Your task to perform on an android device: Open the phone app and click the voicemail tab. Image 0: 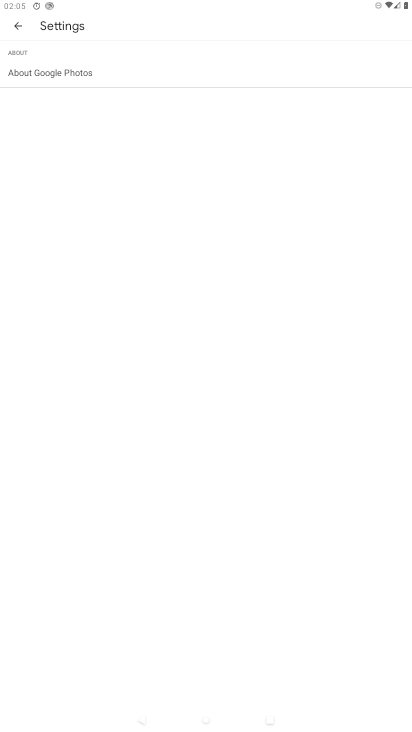
Step 0: press home button
Your task to perform on an android device: Open the phone app and click the voicemail tab. Image 1: 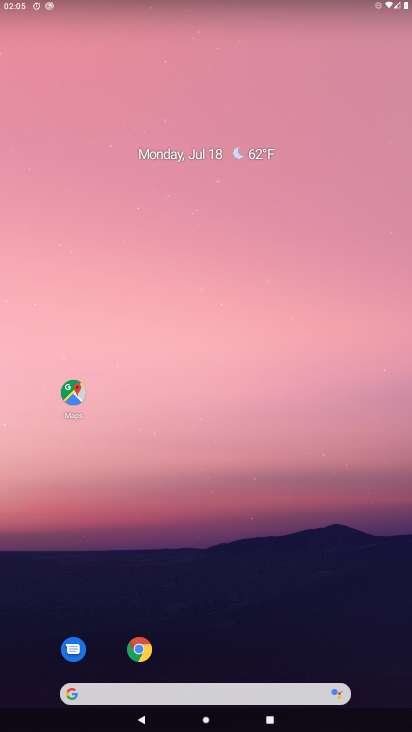
Step 1: drag from (41, 689) to (124, 315)
Your task to perform on an android device: Open the phone app and click the voicemail tab. Image 2: 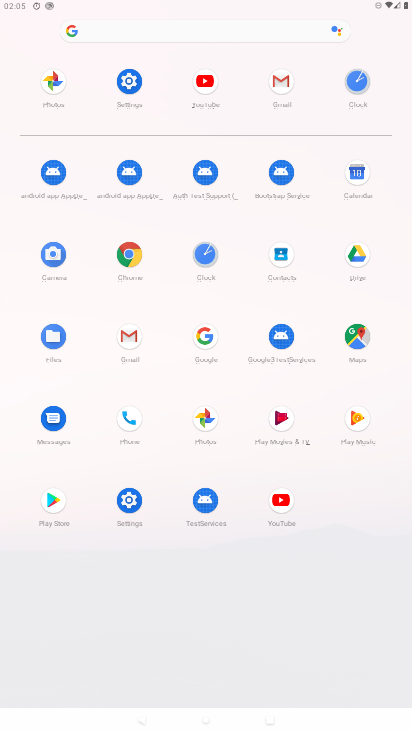
Step 2: click (278, 265)
Your task to perform on an android device: Open the phone app and click the voicemail tab. Image 3: 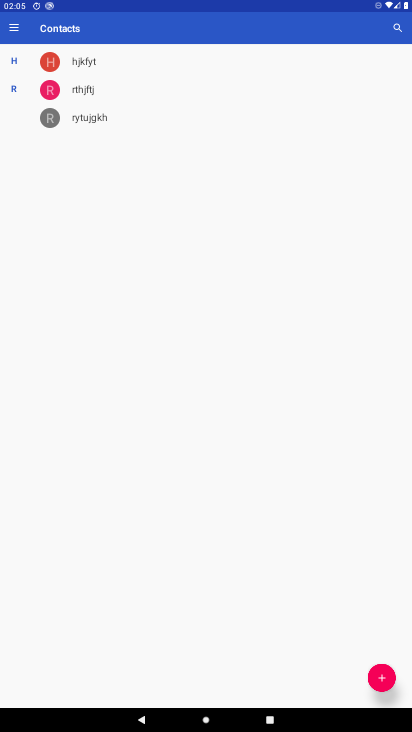
Step 3: task complete